Your task to perform on an android device: move a message to another label in the gmail app Image 0: 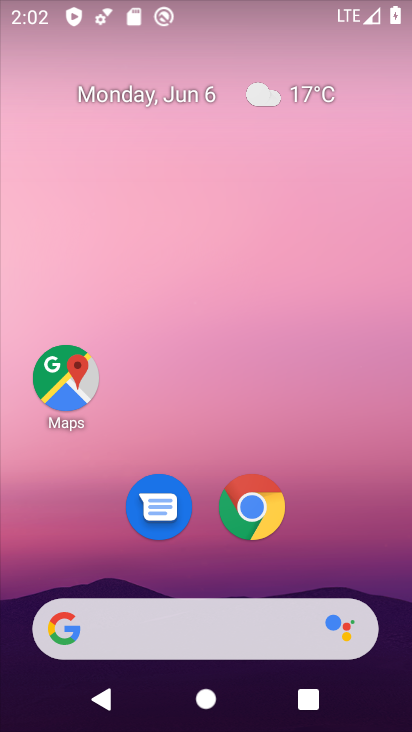
Step 0: drag from (354, 579) to (183, 47)
Your task to perform on an android device: move a message to another label in the gmail app Image 1: 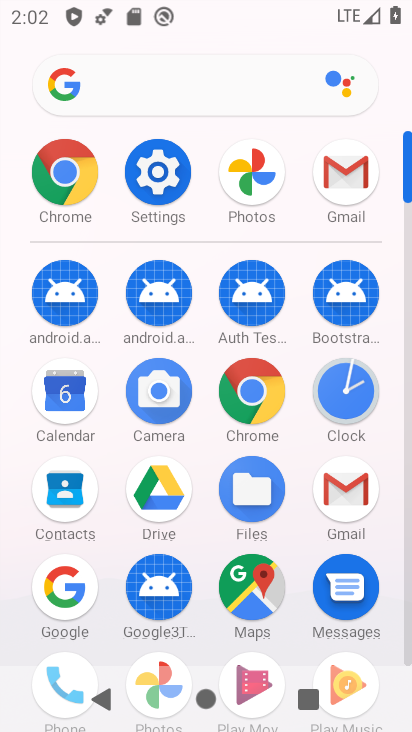
Step 1: click (343, 161)
Your task to perform on an android device: move a message to another label in the gmail app Image 2: 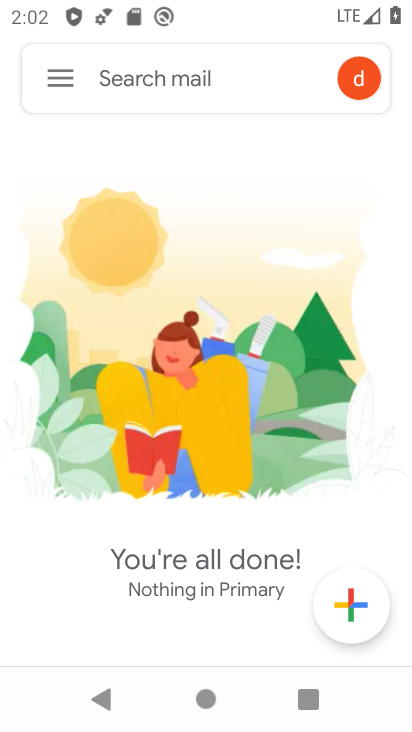
Step 2: click (60, 88)
Your task to perform on an android device: move a message to another label in the gmail app Image 3: 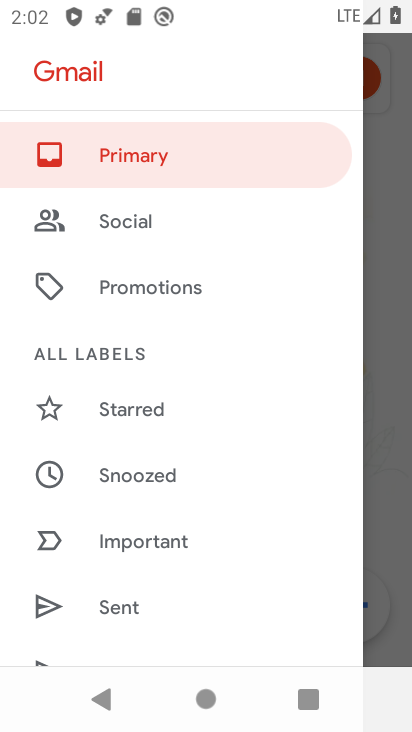
Step 3: click (216, 142)
Your task to perform on an android device: move a message to another label in the gmail app Image 4: 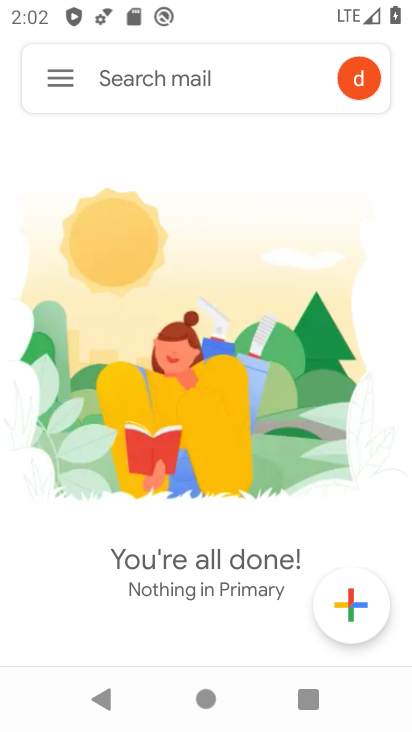
Step 4: task complete